Your task to perform on an android device: What's the weather? Image 0: 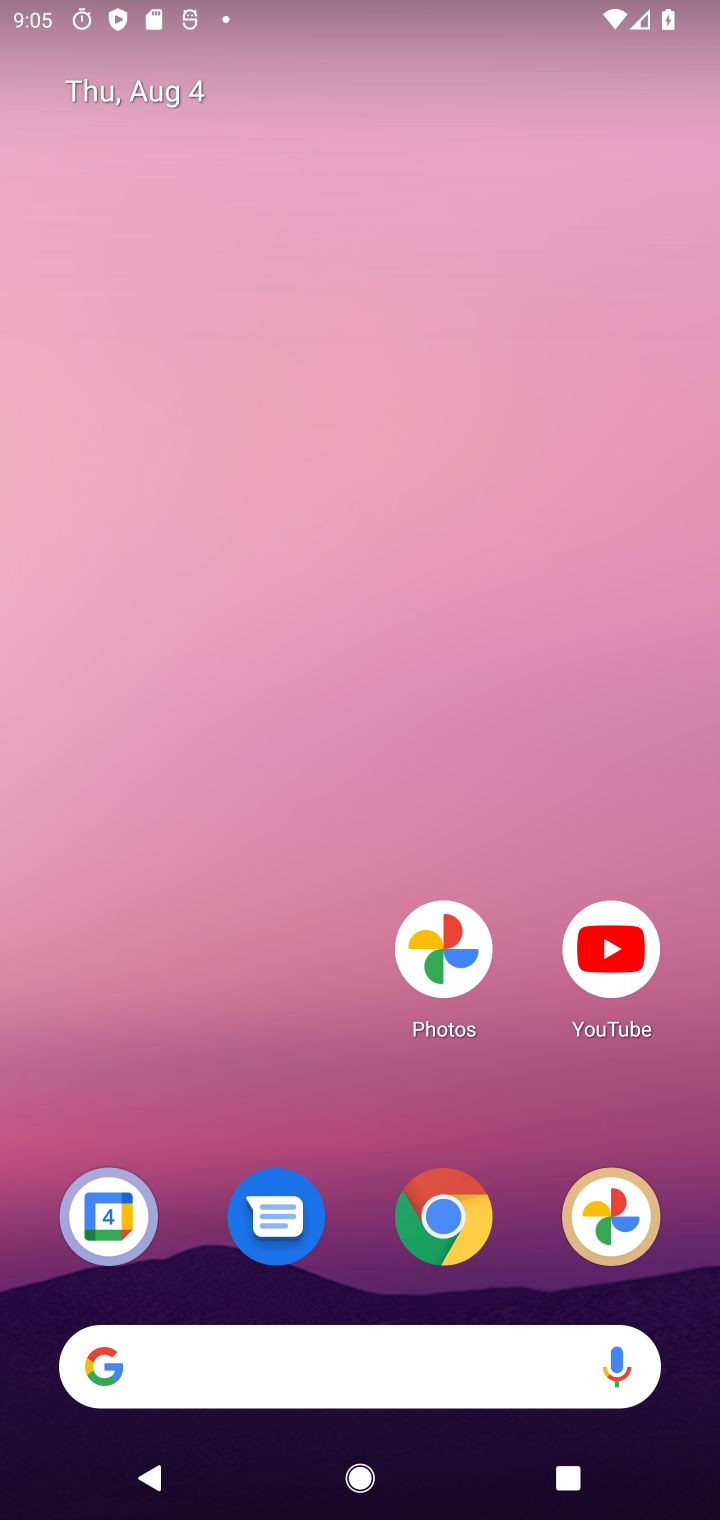
Step 0: drag from (344, 1119) to (333, 103)
Your task to perform on an android device: What's the weather? Image 1: 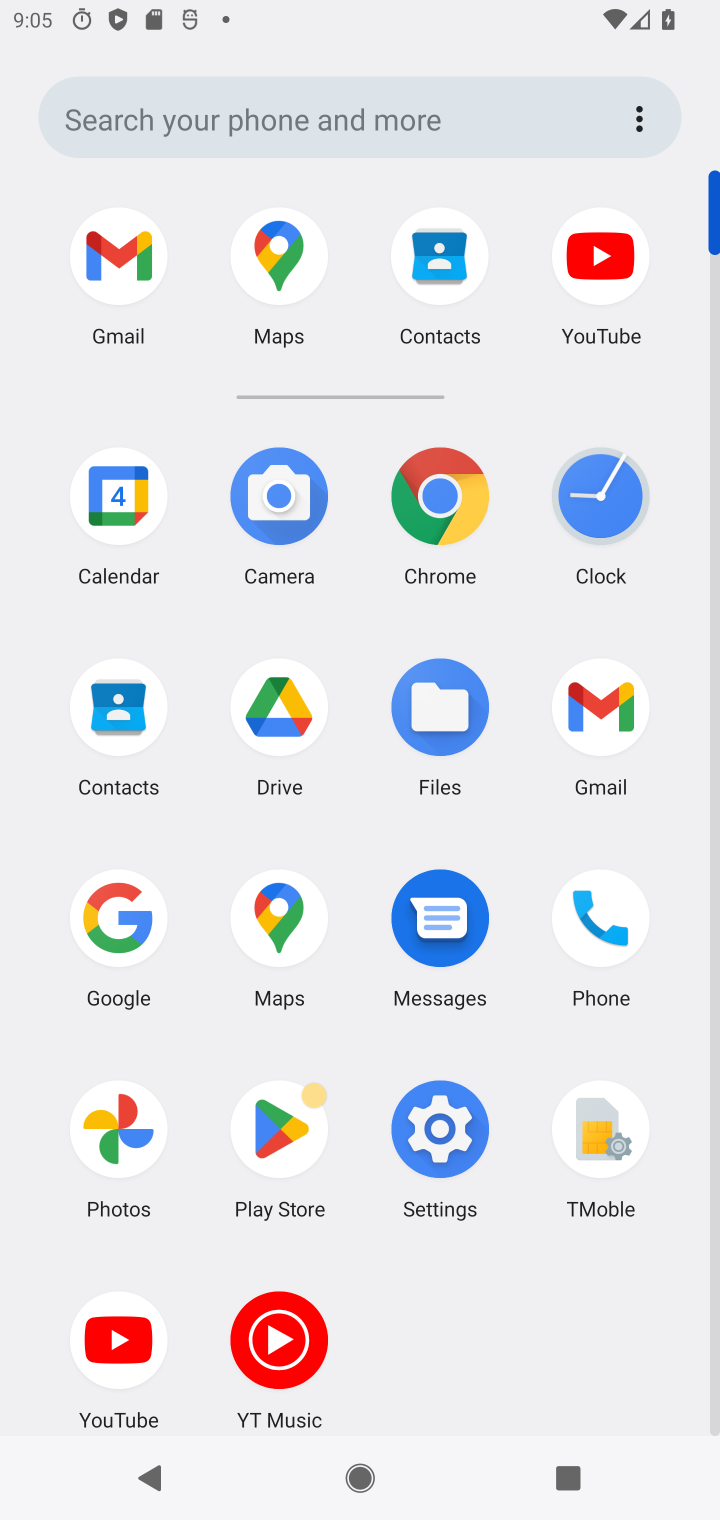
Step 1: click (121, 926)
Your task to perform on an android device: What's the weather? Image 2: 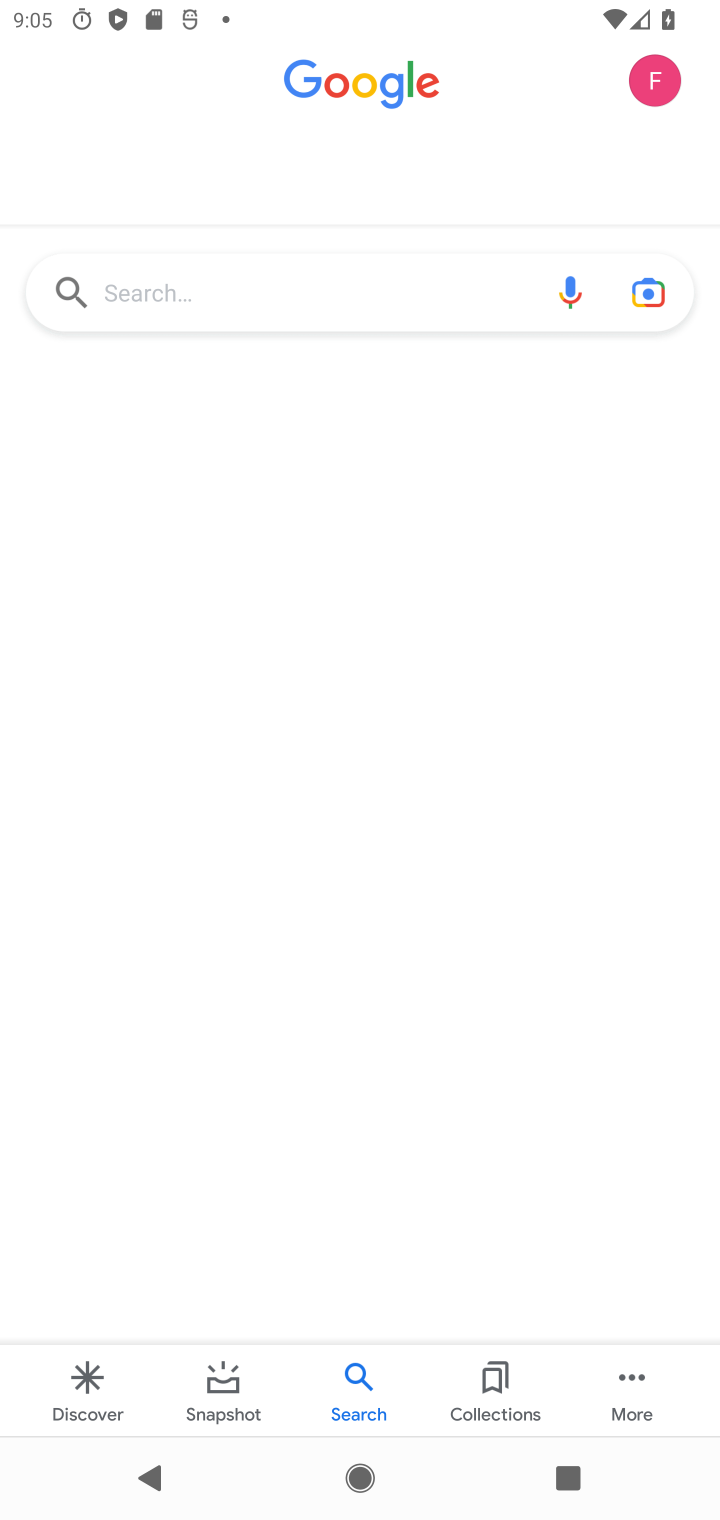
Step 2: click (390, 285)
Your task to perform on an android device: What's the weather? Image 3: 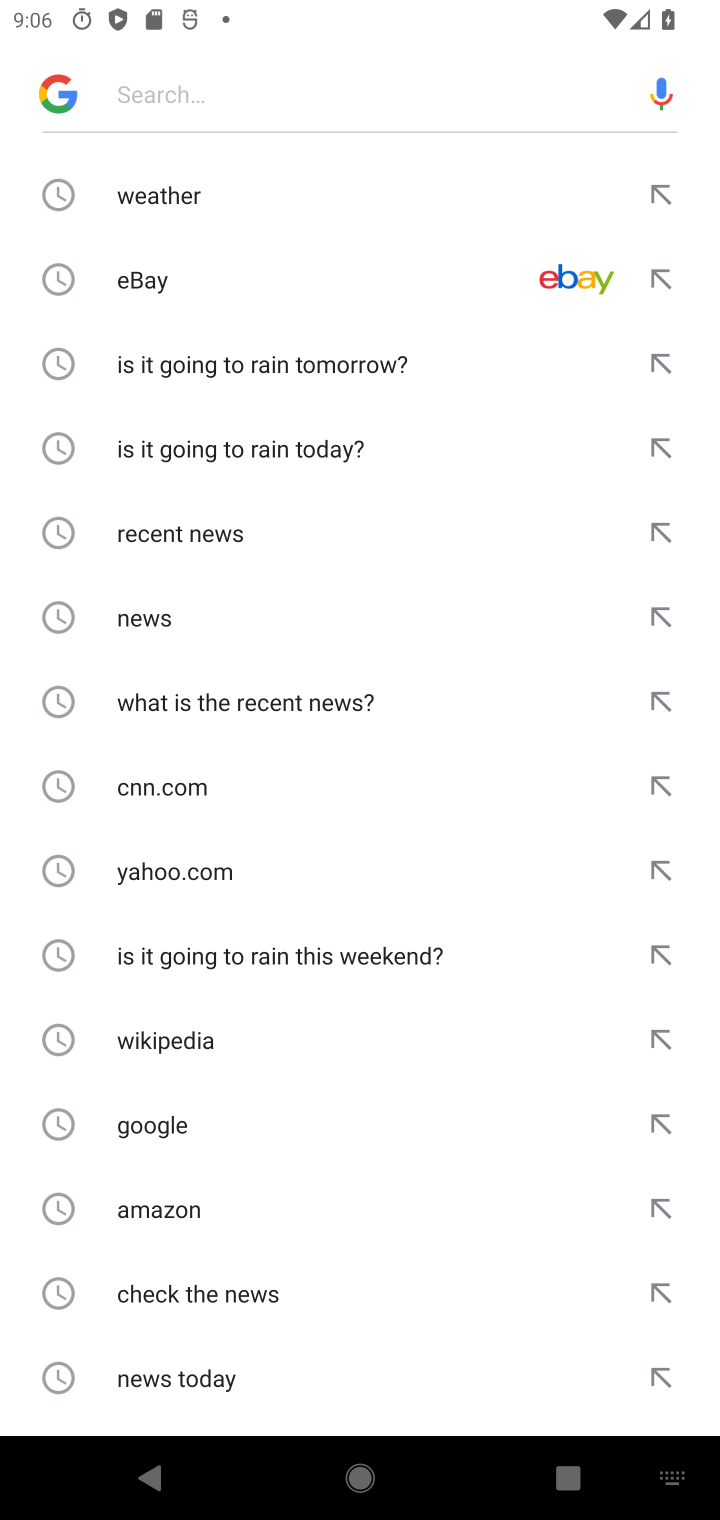
Step 3: click (148, 202)
Your task to perform on an android device: What's the weather? Image 4: 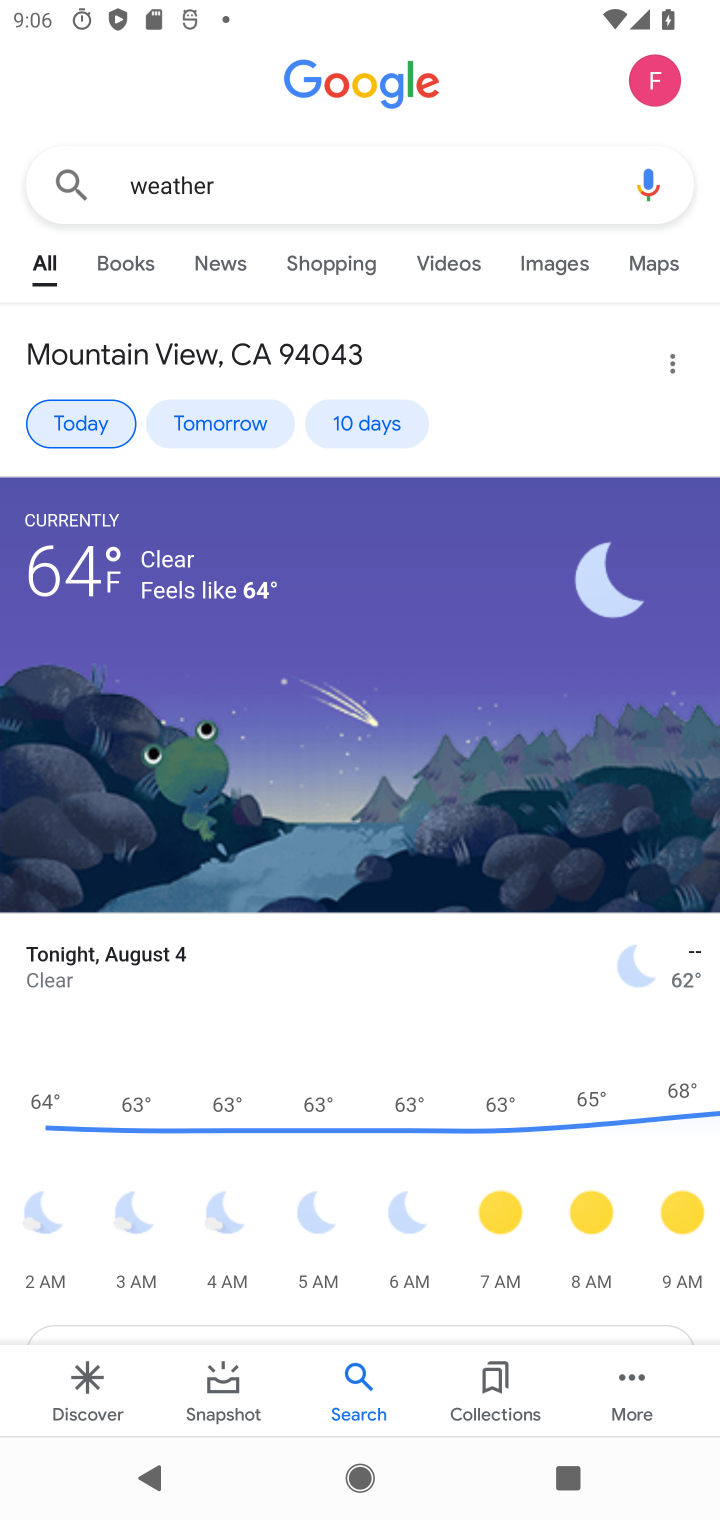
Step 4: task complete